Your task to perform on an android device: Open Google Image 0: 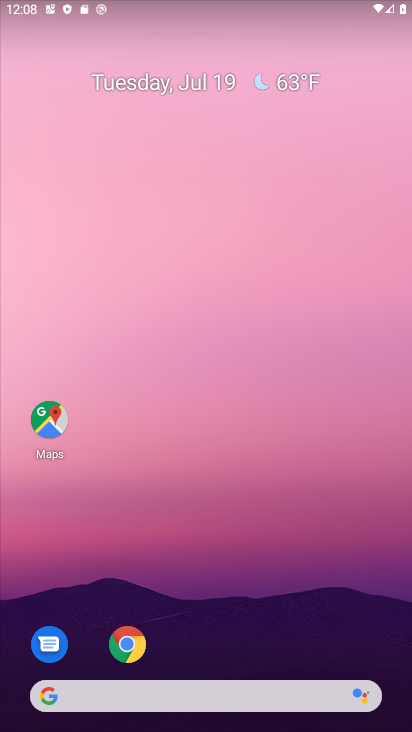
Step 0: drag from (210, 725) to (210, 337)
Your task to perform on an android device: Open Google Image 1: 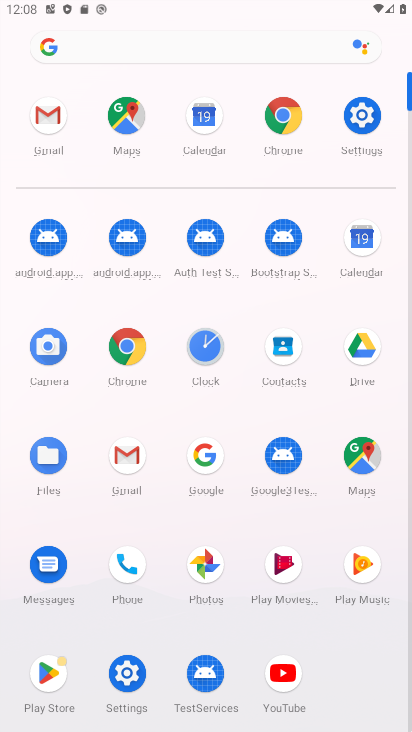
Step 1: click (207, 457)
Your task to perform on an android device: Open Google Image 2: 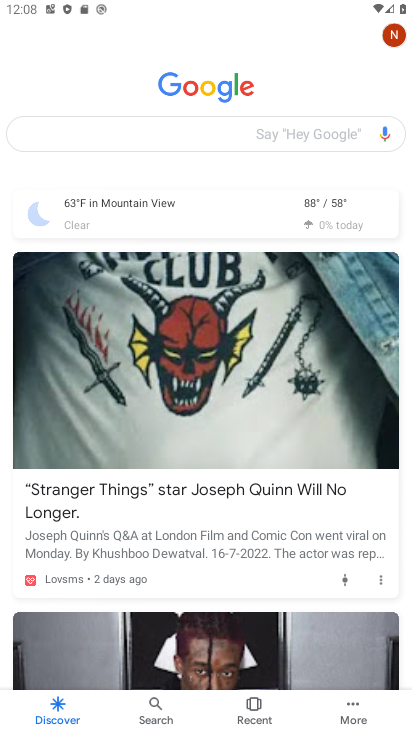
Step 2: task complete